Your task to perform on an android device: Open Wikipedia Image 0: 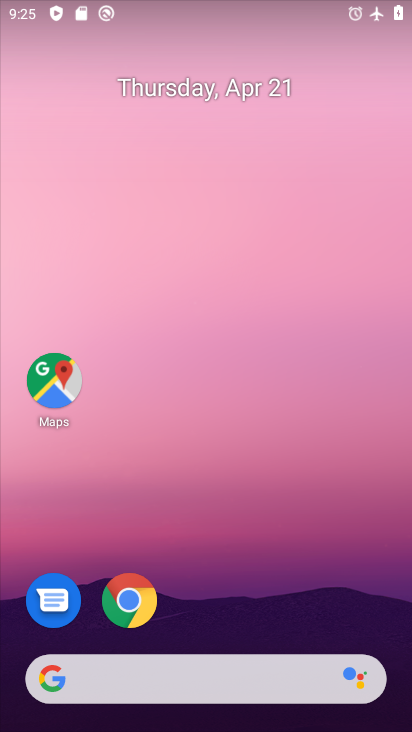
Step 0: press home button
Your task to perform on an android device: Open Wikipedia Image 1: 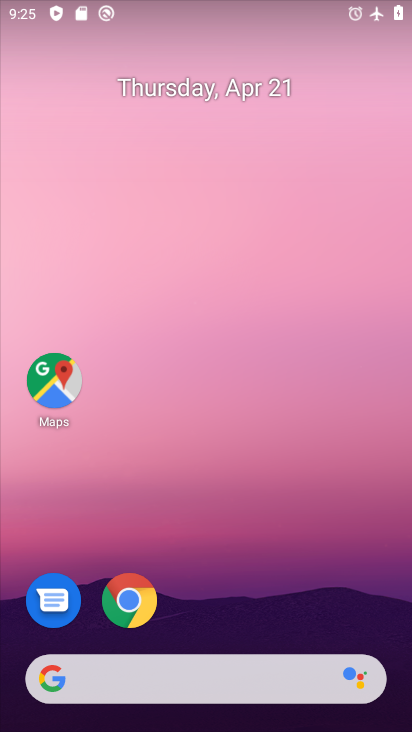
Step 1: drag from (232, 591) to (245, 0)
Your task to perform on an android device: Open Wikipedia Image 2: 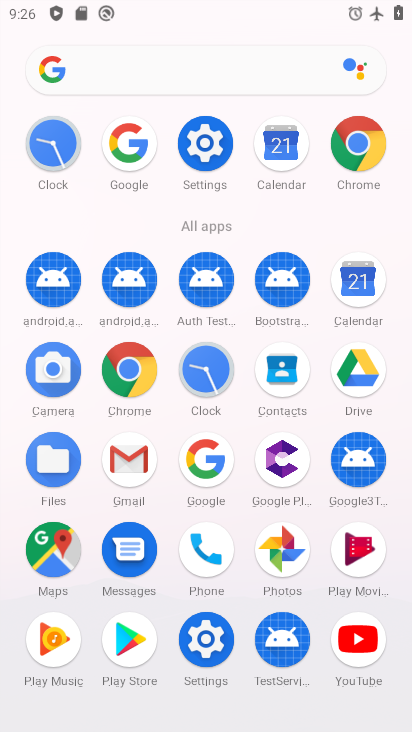
Step 2: click (358, 146)
Your task to perform on an android device: Open Wikipedia Image 3: 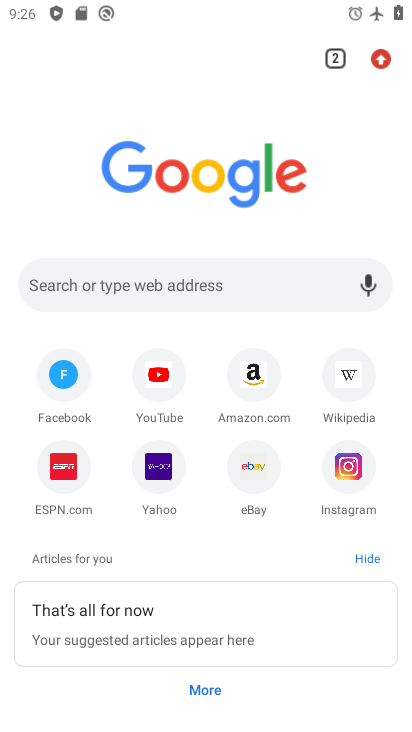
Step 3: click (349, 374)
Your task to perform on an android device: Open Wikipedia Image 4: 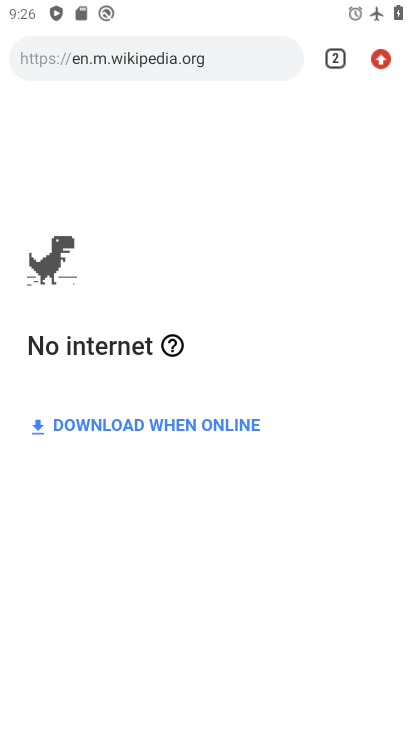
Step 4: task complete